Your task to perform on an android device: Go to network settings Image 0: 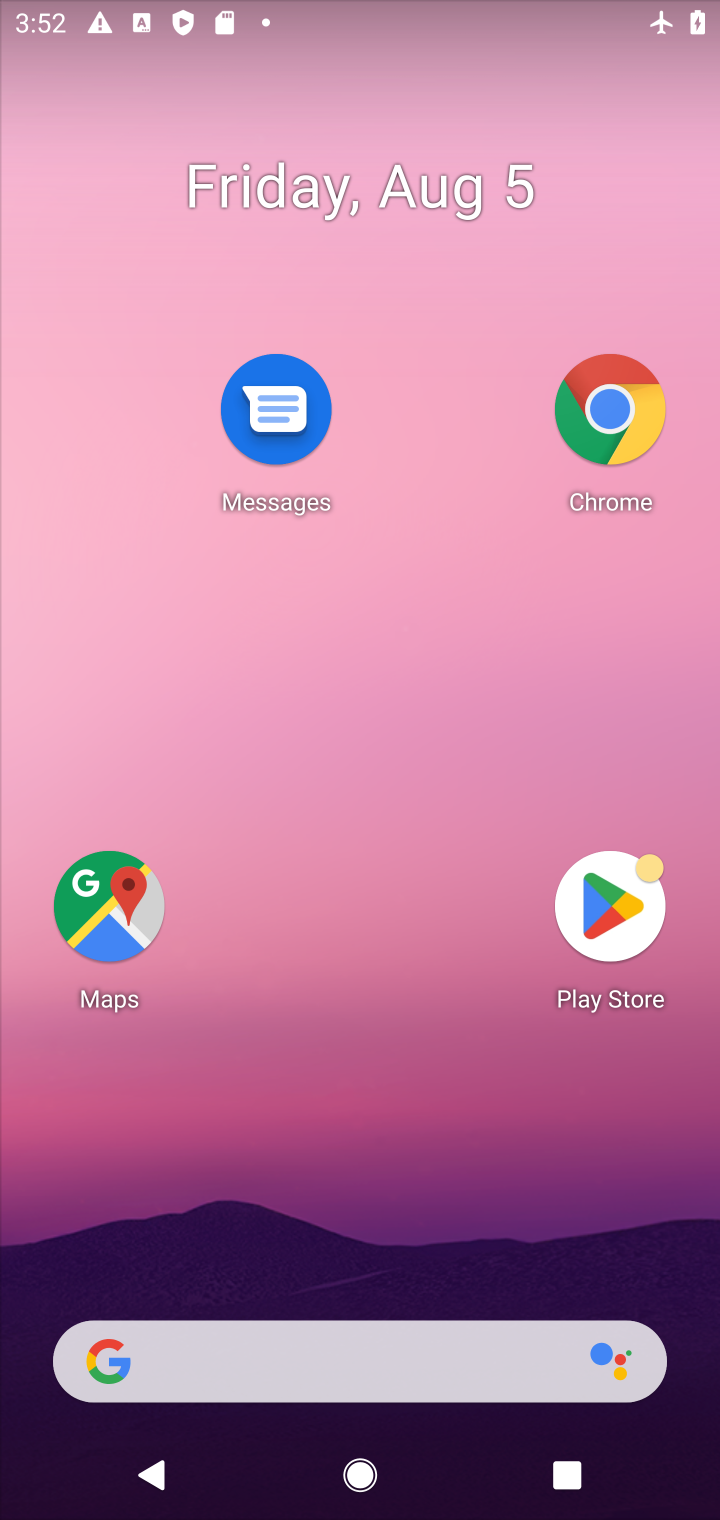
Step 0: drag from (353, 1210) to (421, 330)
Your task to perform on an android device: Go to network settings Image 1: 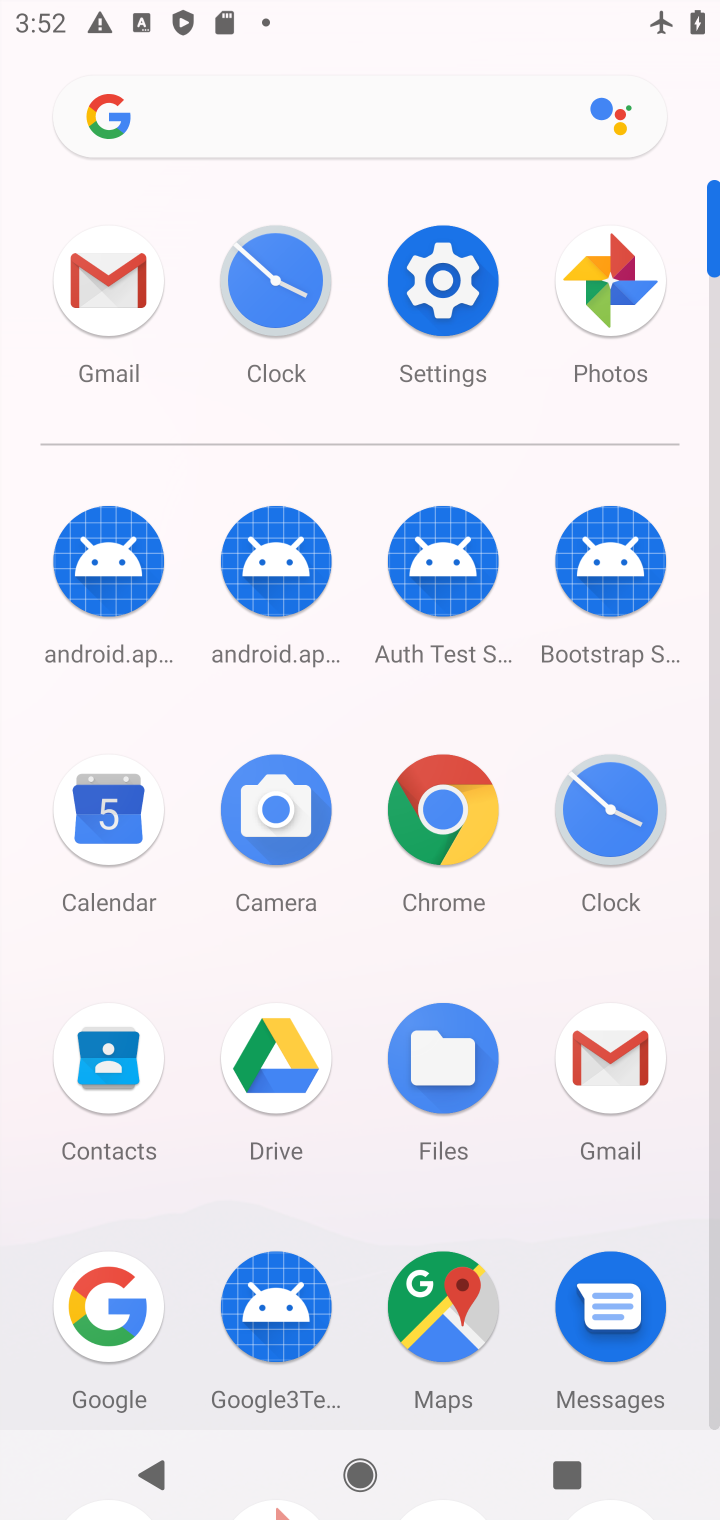
Step 1: click (431, 321)
Your task to perform on an android device: Go to network settings Image 2: 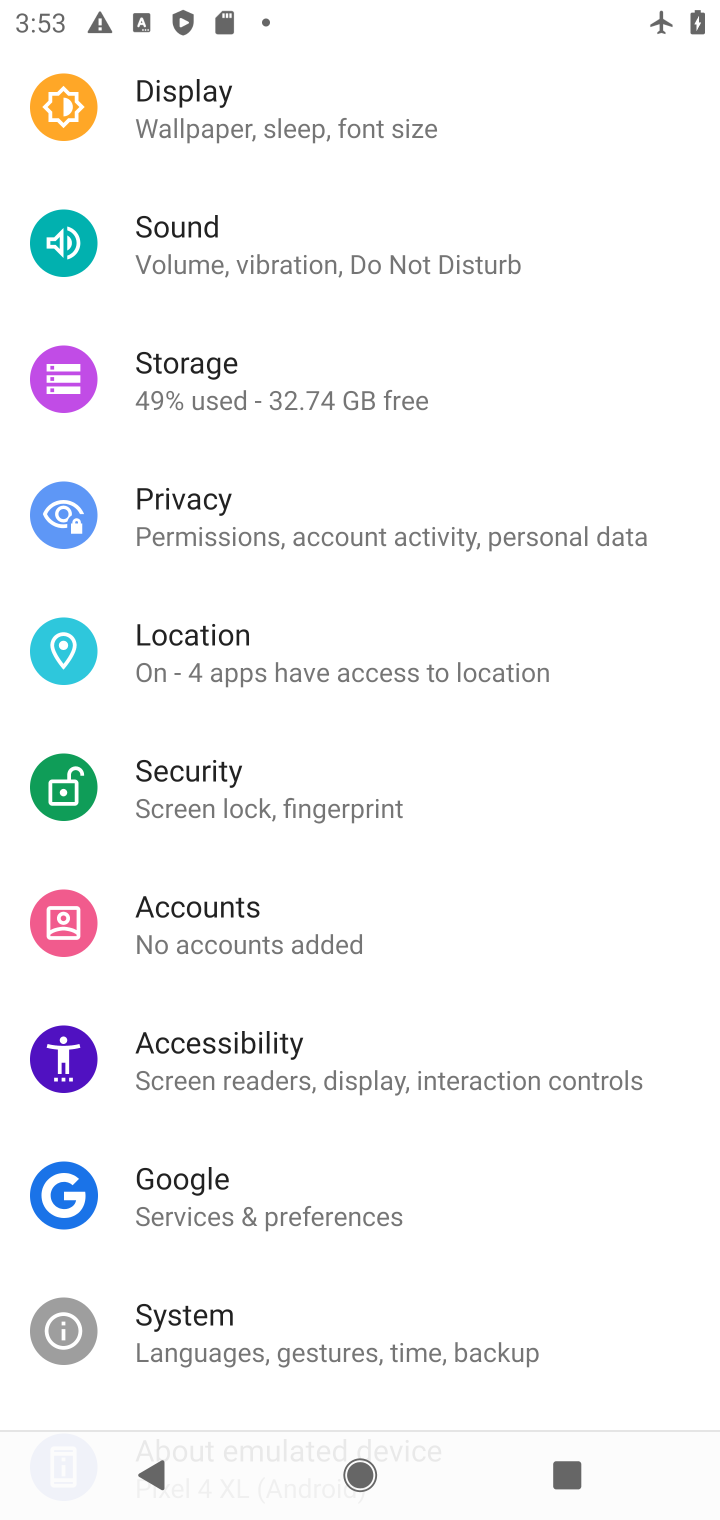
Step 2: drag from (313, 194) to (366, 1000)
Your task to perform on an android device: Go to network settings Image 3: 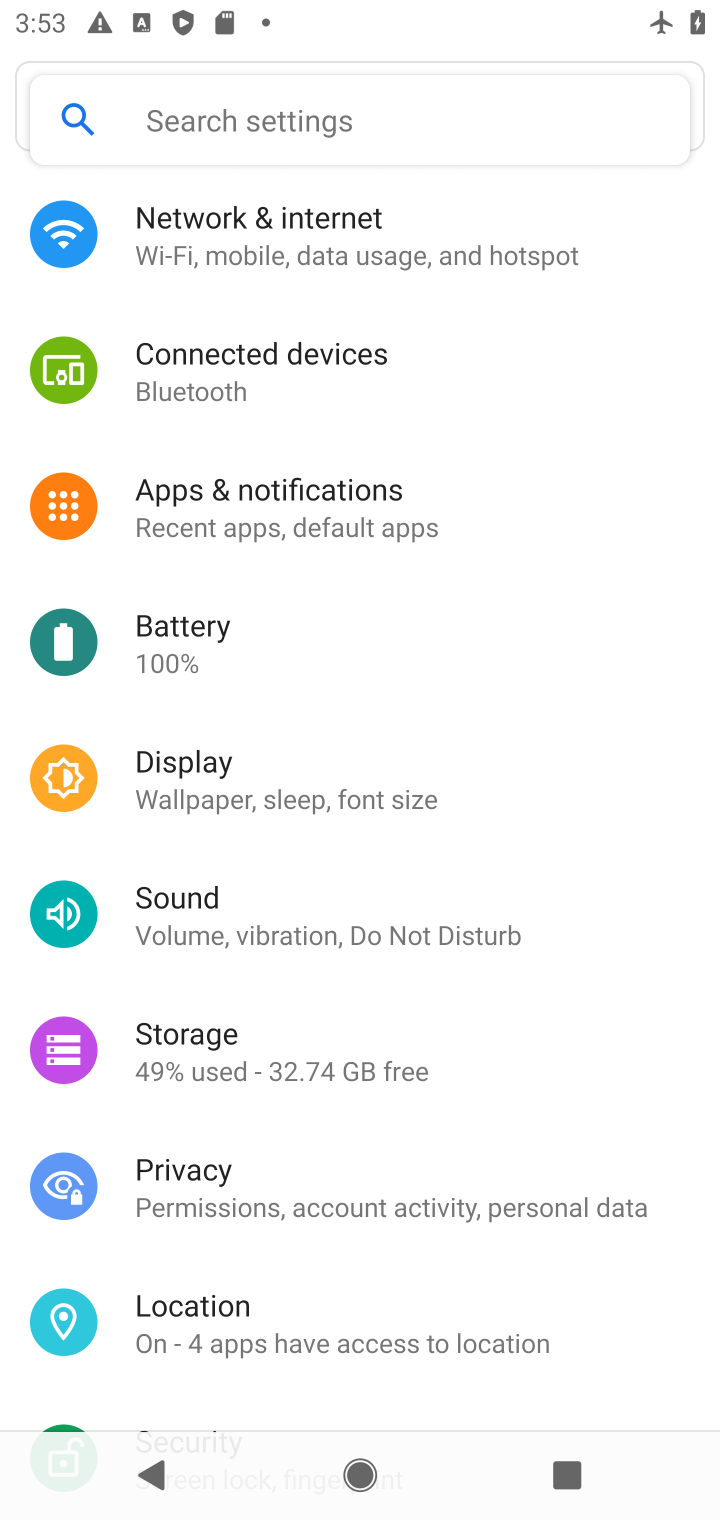
Step 3: click (285, 270)
Your task to perform on an android device: Go to network settings Image 4: 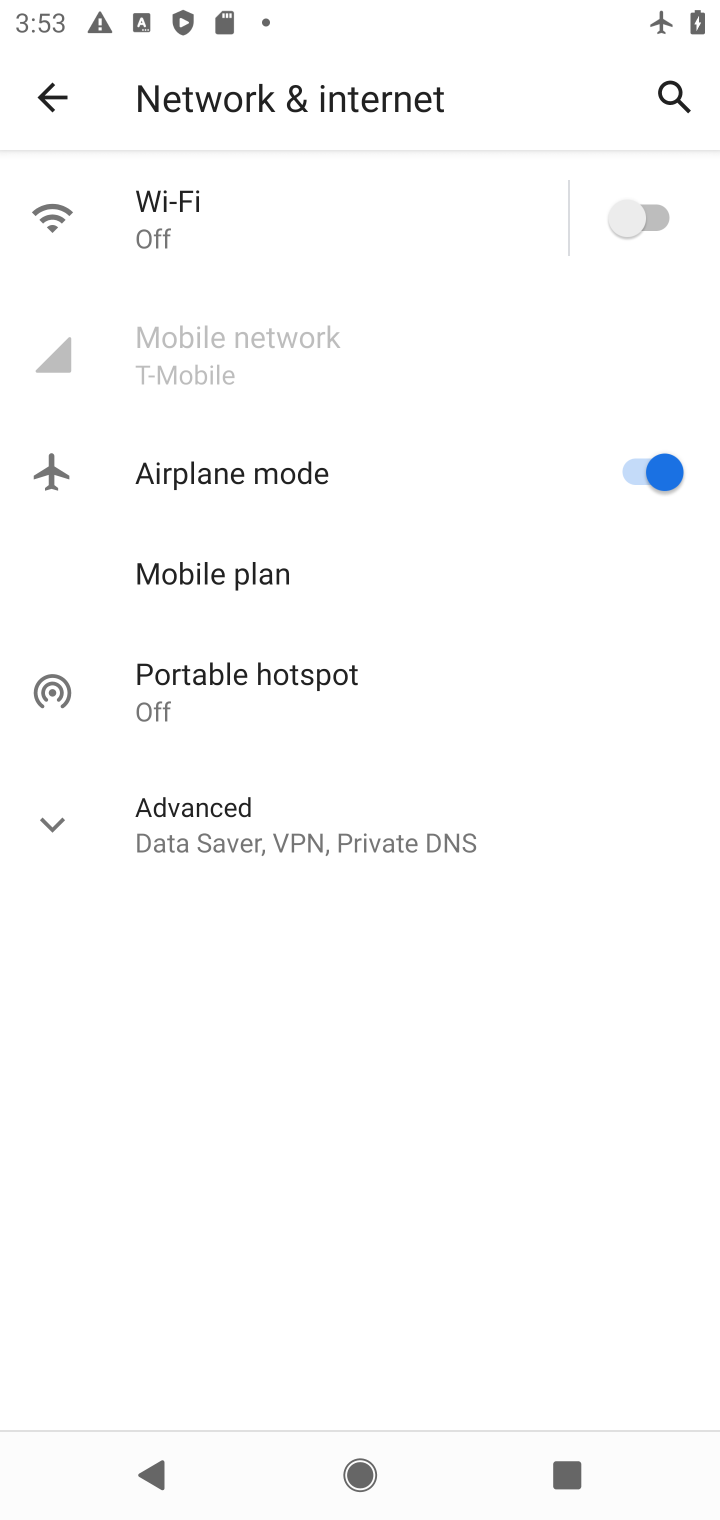
Step 4: task complete